Your task to perform on an android device: install app "Indeed Job Search" Image 0: 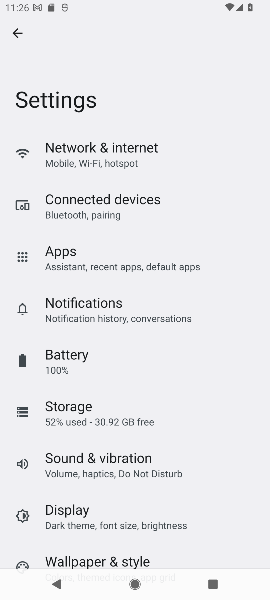
Step 0: press home button
Your task to perform on an android device: install app "Indeed Job Search" Image 1: 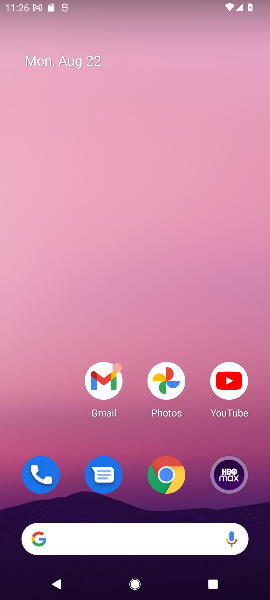
Step 1: drag from (117, 423) to (73, 32)
Your task to perform on an android device: install app "Indeed Job Search" Image 2: 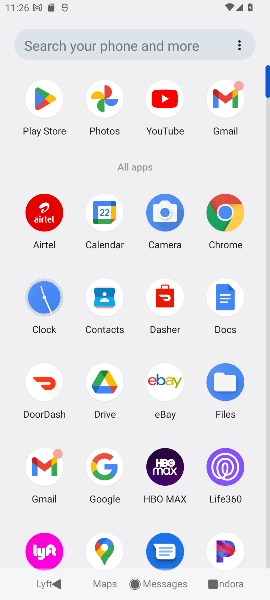
Step 2: click (36, 97)
Your task to perform on an android device: install app "Indeed Job Search" Image 3: 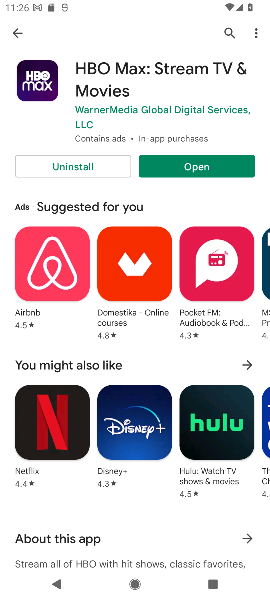
Step 3: click (16, 27)
Your task to perform on an android device: install app "Indeed Job Search" Image 4: 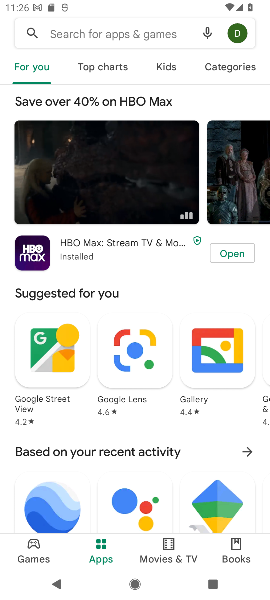
Step 4: click (110, 29)
Your task to perform on an android device: install app "Indeed Job Search" Image 5: 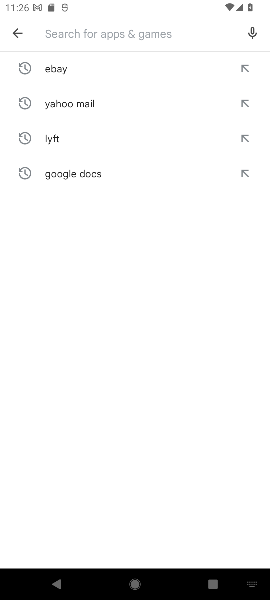
Step 5: type "Indeed Job Search"
Your task to perform on an android device: install app "Indeed Job Search" Image 6: 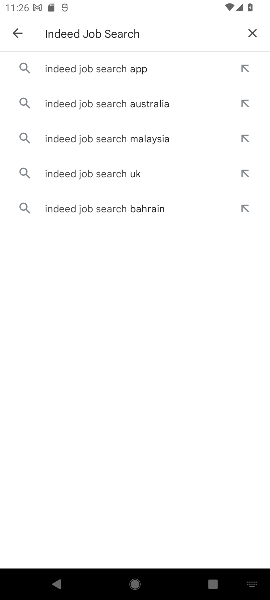
Step 6: click (115, 70)
Your task to perform on an android device: install app "Indeed Job Search" Image 7: 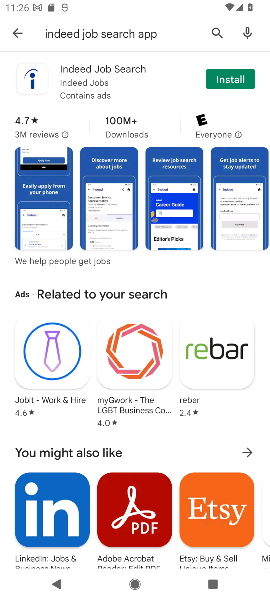
Step 7: click (217, 78)
Your task to perform on an android device: install app "Indeed Job Search" Image 8: 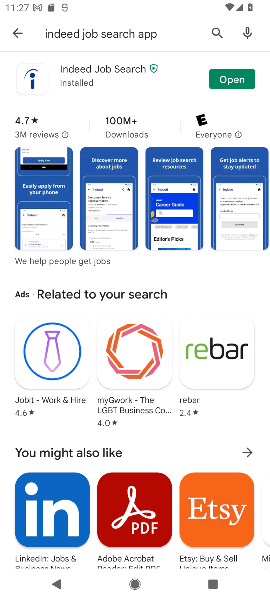
Step 8: click (217, 78)
Your task to perform on an android device: install app "Indeed Job Search" Image 9: 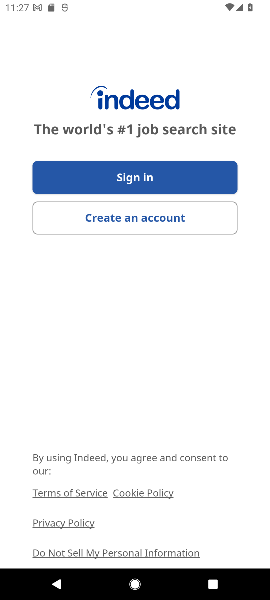
Step 9: task complete